Your task to perform on an android device: visit the assistant section in the google photos Image 0: 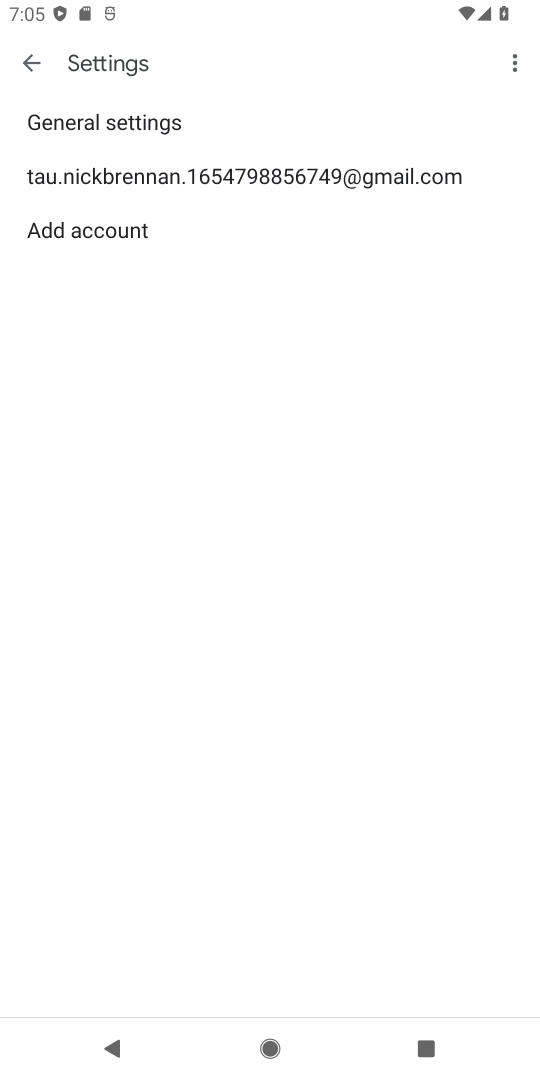
Step 0: press home button
Your task to perform on an android device: visit the assistant section in the google photos Image 1: 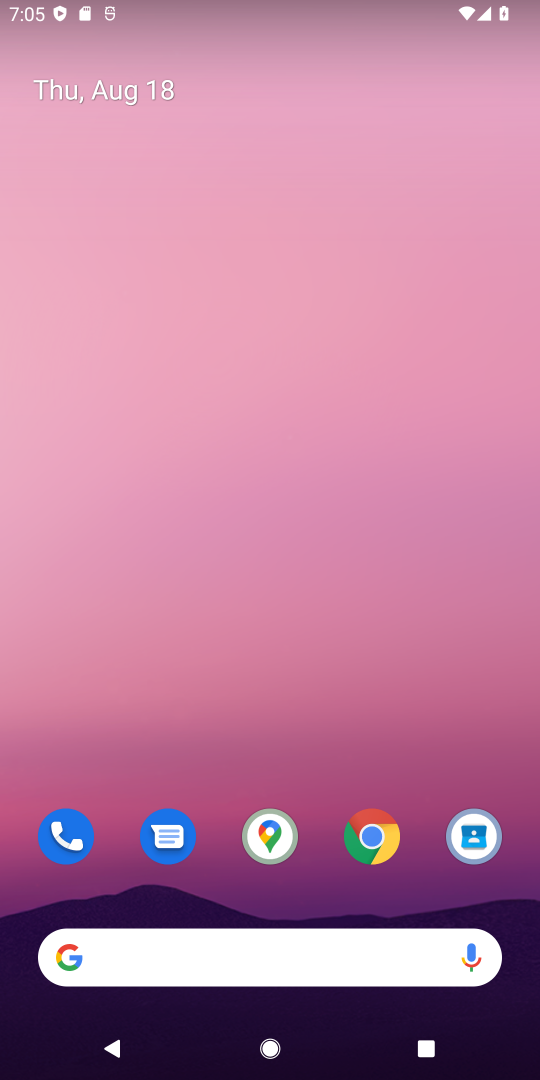
Step 1: drag from (228, 814) to (232, 239)
Your task to perform on an android device: visit the assistant section in the google photos Image 2: 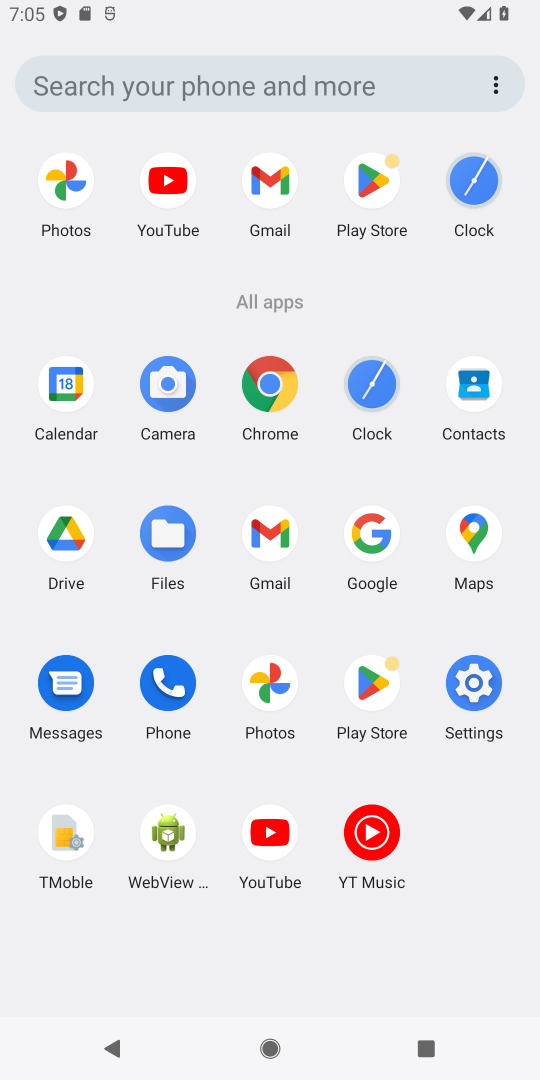
Step 2: click (270, 699)
Your task to perform on an android device: visit the assistant section in the google photos Image 3: 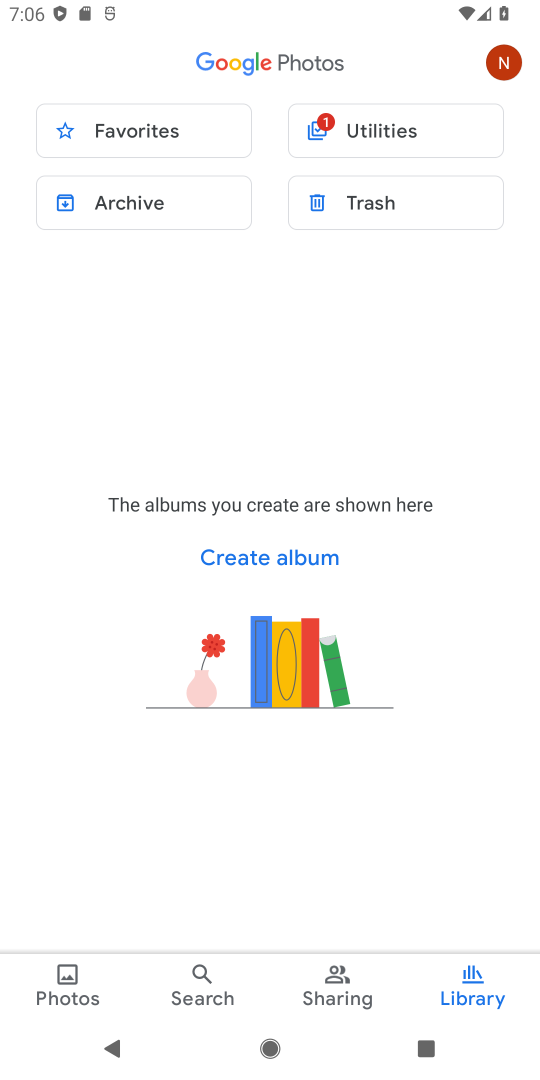
Step 3: click (475, 969)
Your task to perform on an android device: visit the assistant section in the google photos Image 4: 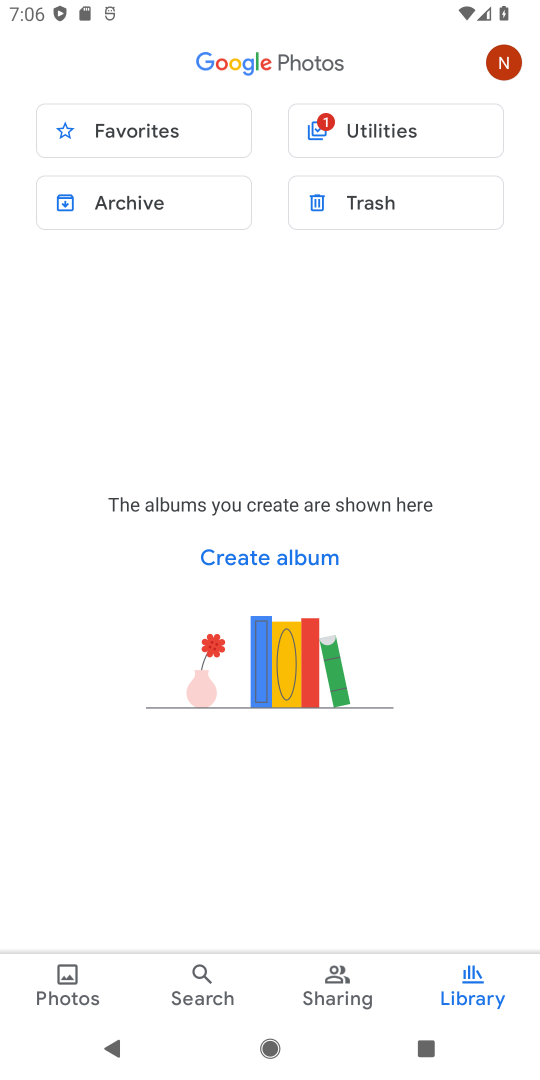
Step 4: task complete